Your task to perform on an android device: open app "Duolingo: language lessons" Image 0: 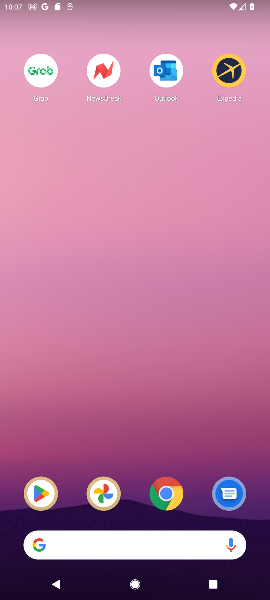
Step 0: click (125, 540)
Your task to perform on an android device: open app "Duolingo: language lessons" Image 1: 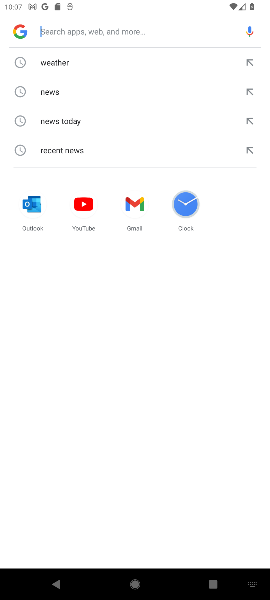
Step 1: type "duolingo"
Your task to perform on an android device: open app "Duolingo: language lessons" Image 2: 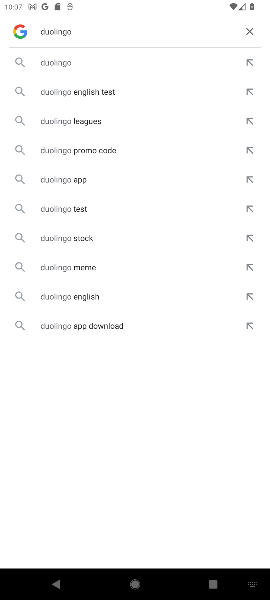
Step 2: click (111, 67)
Your task to perform on an android device: open app "Duolingo: language lessons" Image 3: 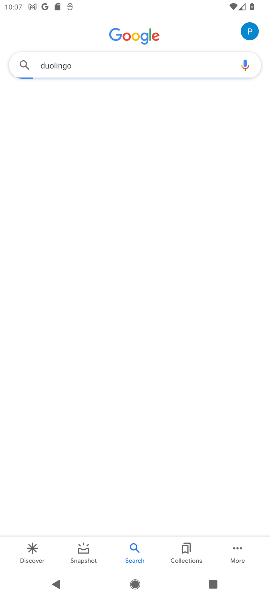
Step 3: task complete